Your task to perform on an android device: Open Google Image 0: 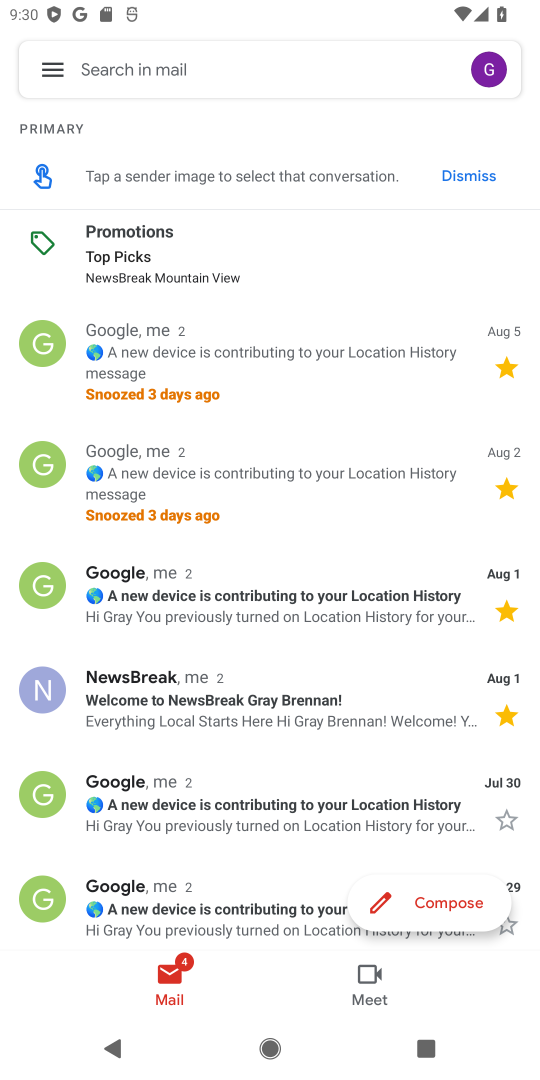
Step 0: press home button
Your task to perform on an android device: Open Google Image 1: 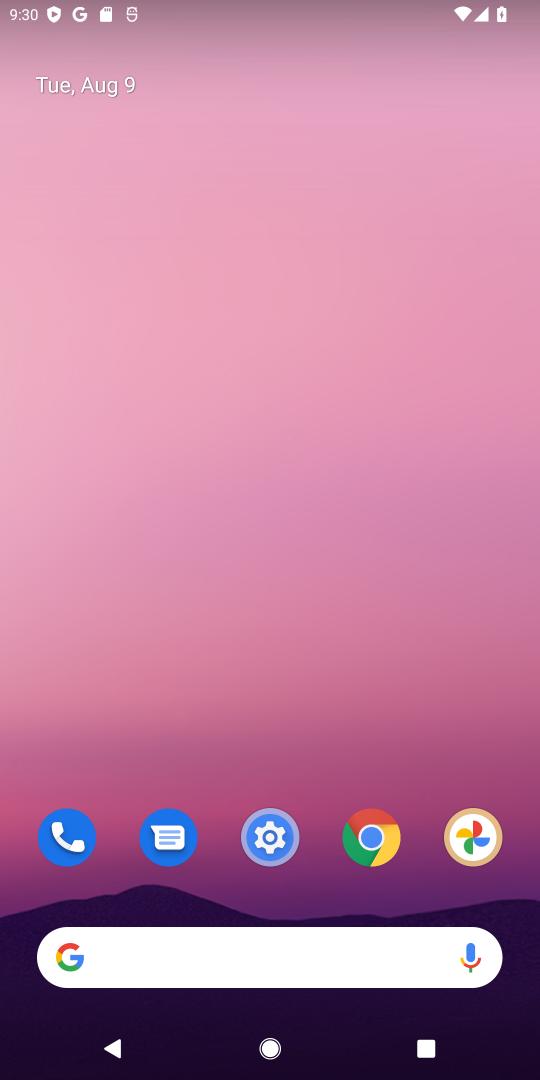
Step 1: drag from (321, 907) to (223, 239)
Your task to perform on an android device: Open Google Image 2: 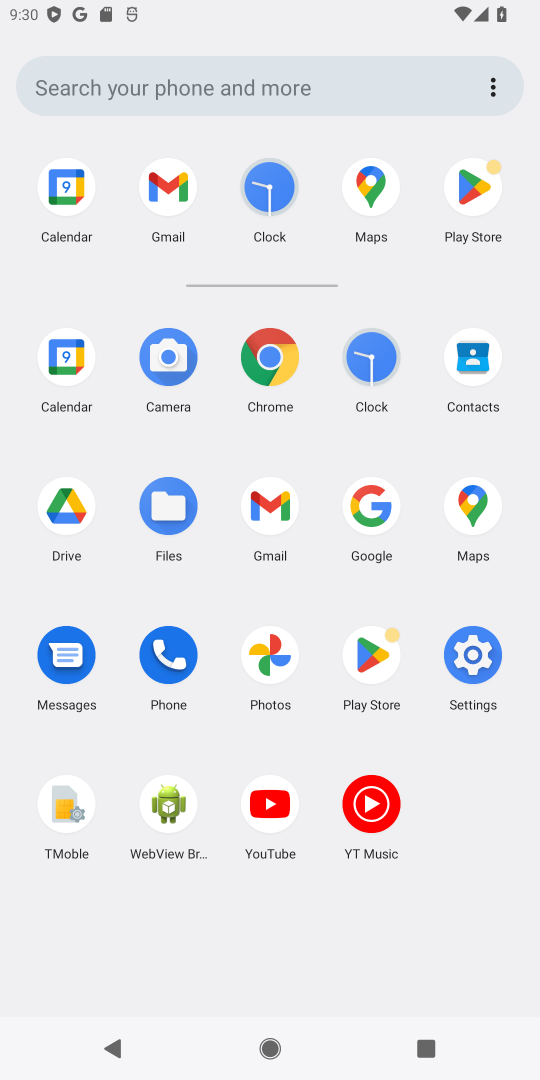
Step 2: click (376, 511)
Your task to perform on an android device: Open Google Image 3: 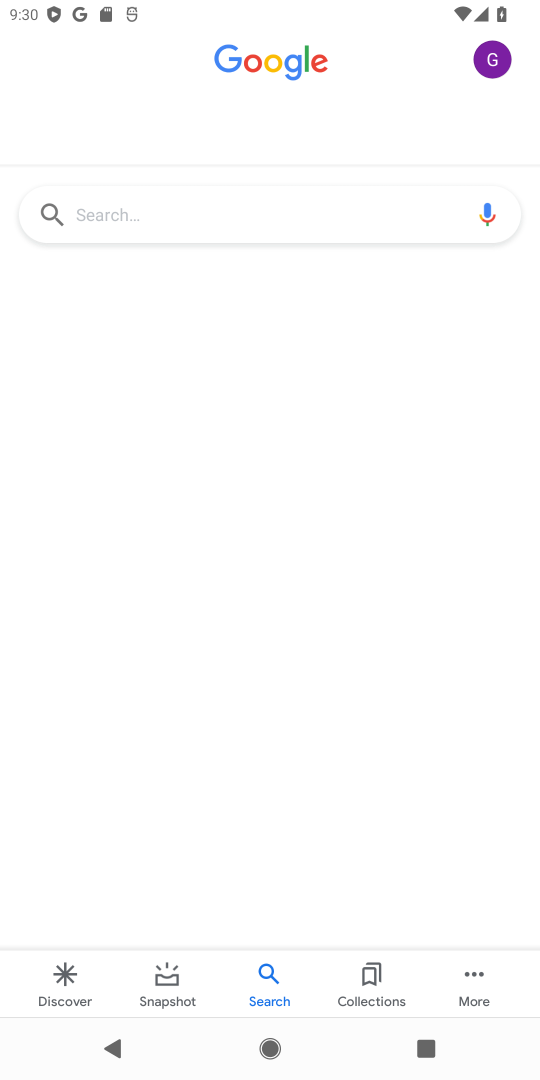
Step 3: task complete